Your task to perform on an android device: Go to privacy settings Image 0: 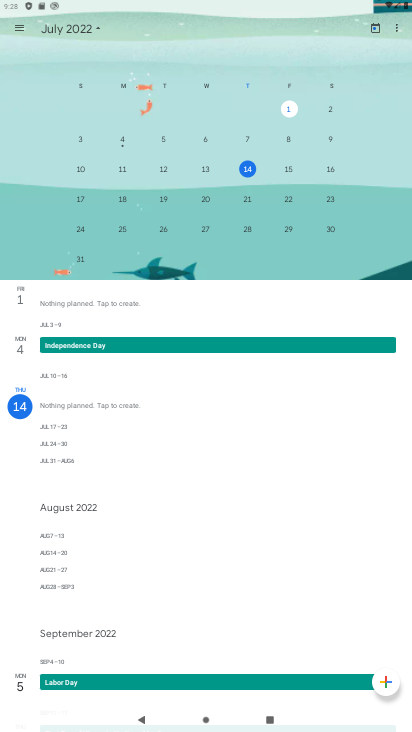
Step 0: press home button
Your task to perform on an android device: Go to privacy settings Image 1: 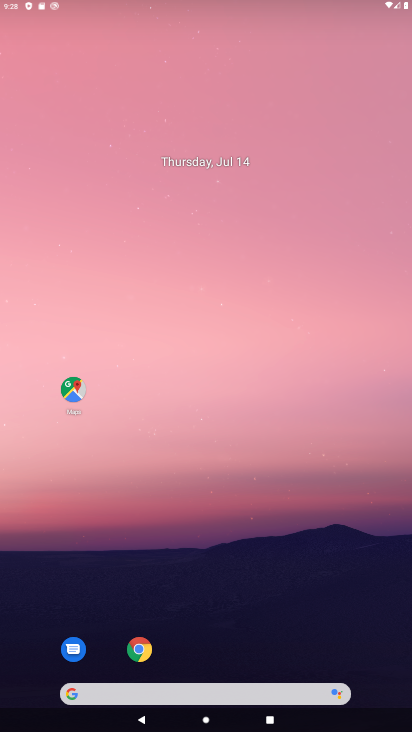
Step 1: drag from (229, 635) to (233, 156)
Your task to perform on an android device: Go to privacy settings Image 2: 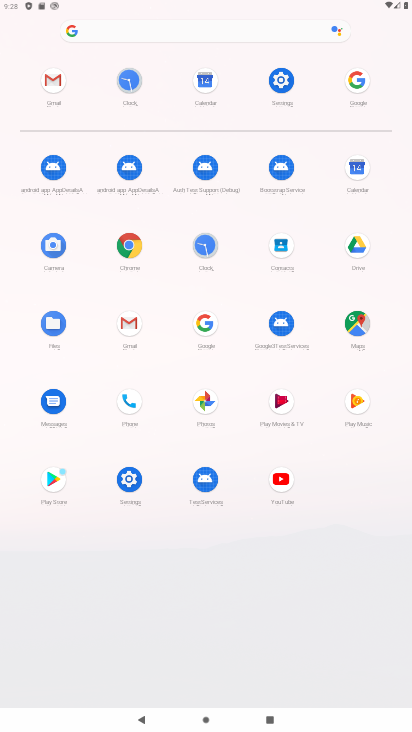
Step 2: click (273, 96)
Your task to perform on an android device: Go to privacy settings Image 3: 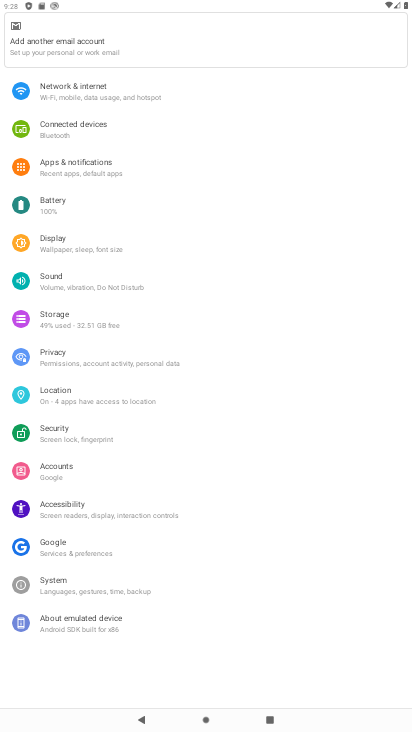
Step 3: click (98, 361)
Your task to perform on an android device: Go to privacy settings Image 4: 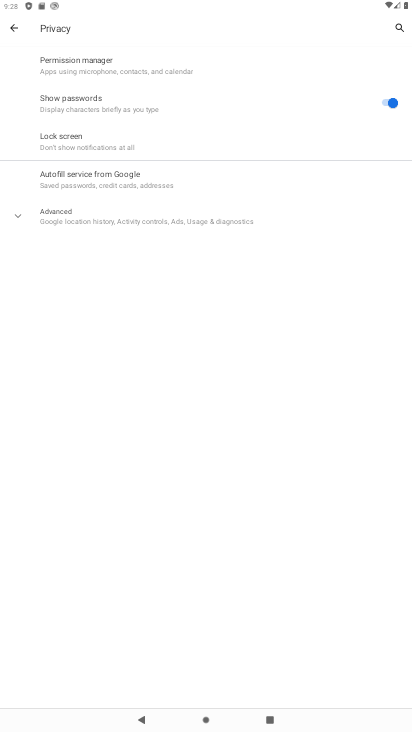
Step 4: task complete